Your task to perform on an android device: add a contact Image 0: 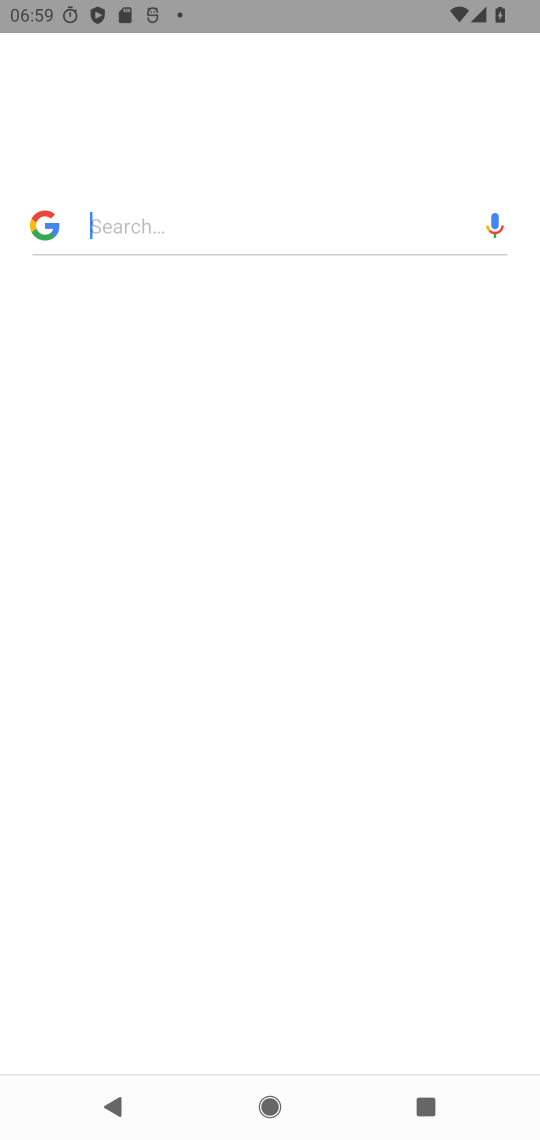
Step 0: press home button
Your task to perform on an android device: add a contact Image 1: 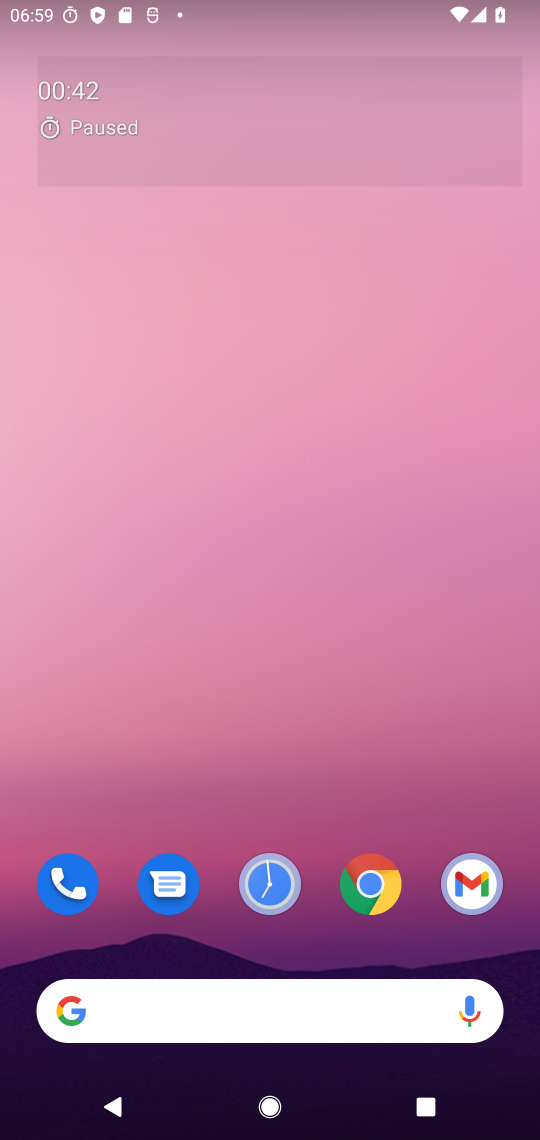
Step 1: drag from (340, 308) to (345, 132)
Your task to perform on an android device: add a contact Image 2: 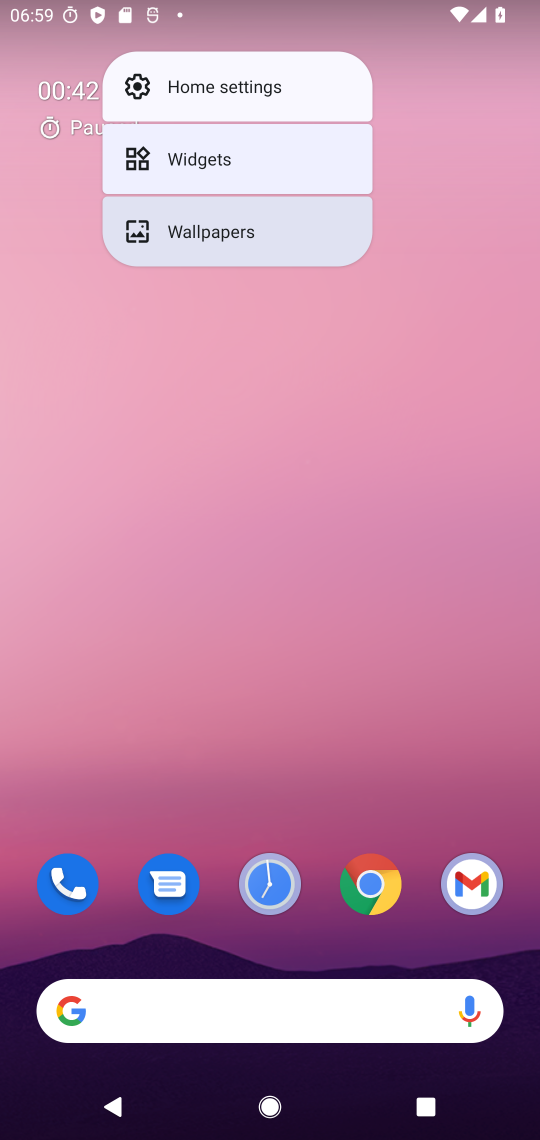
Step 2: click (327, 943)
Your task to perform on an android device: add a contact Image 3: 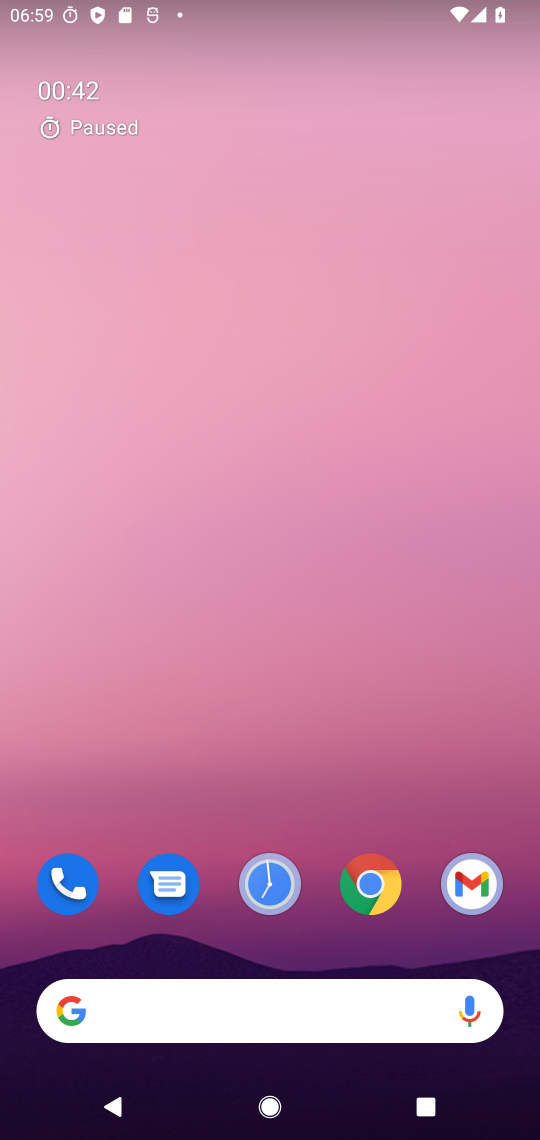
Step 3: drag from (311, 941) to (255, 248)
Your task to perform on an android device: add a contact Image 4: 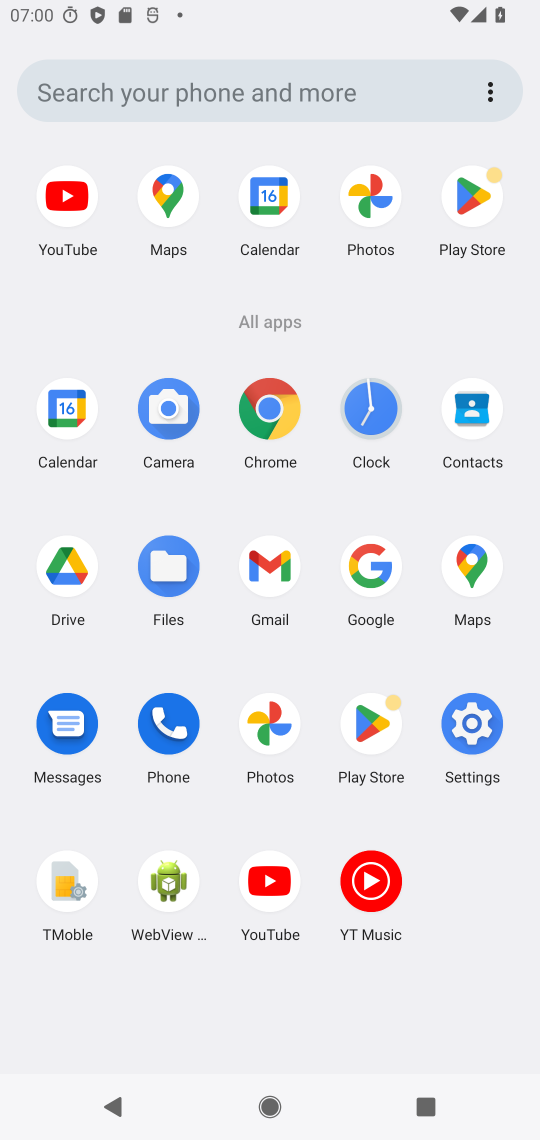
Step 4: click (481, 422)
Your task to perform on an android device: add a contact Image 5: 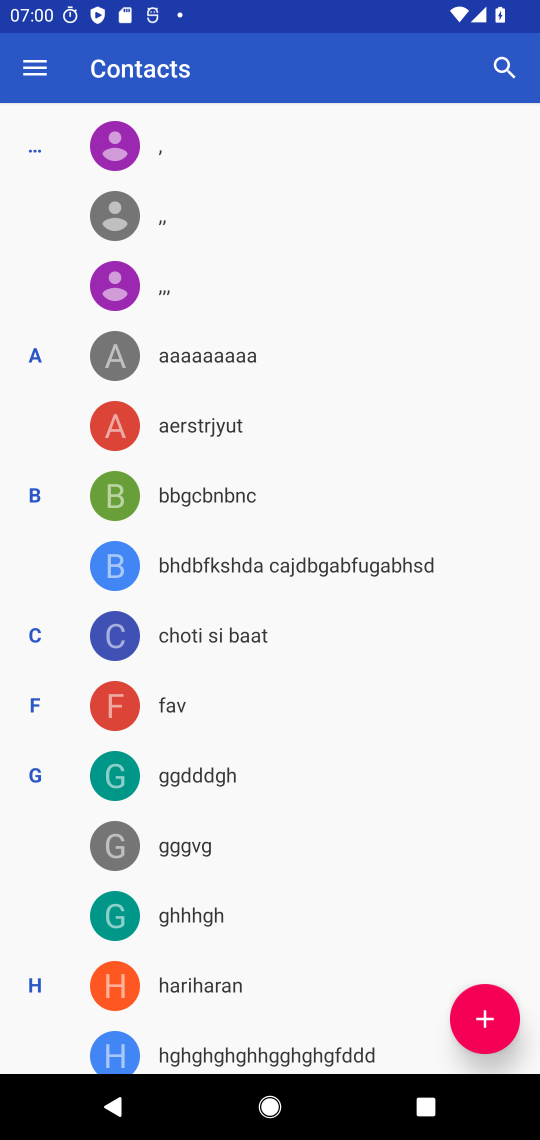
Step 5: click (493, 1017)
Your task to perform on an android device: add a contact Image 6: 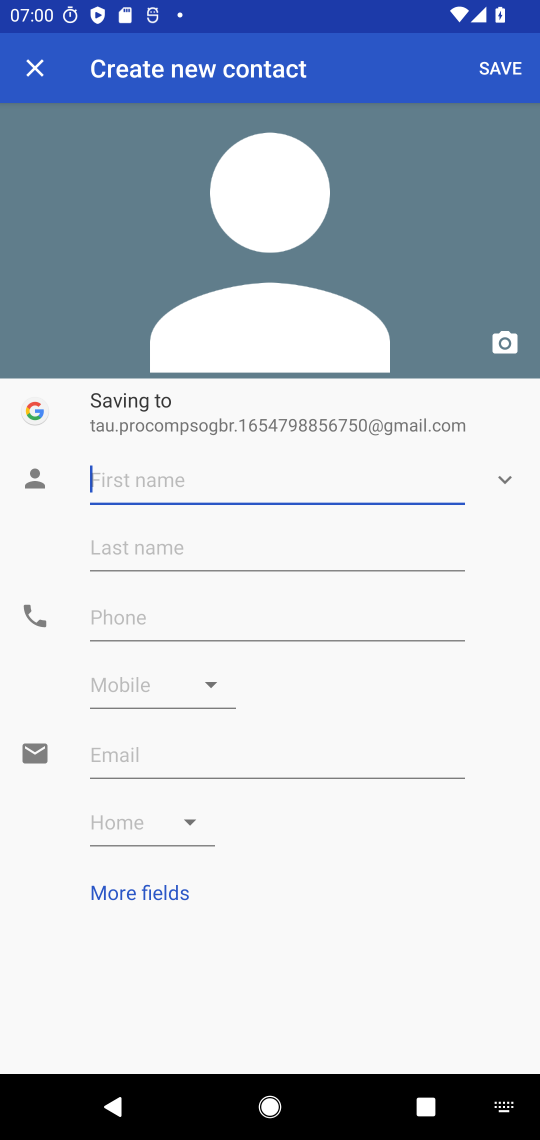
Step 6: click (187, 473)
Your task to perform on an android device: add a contact Image 7: 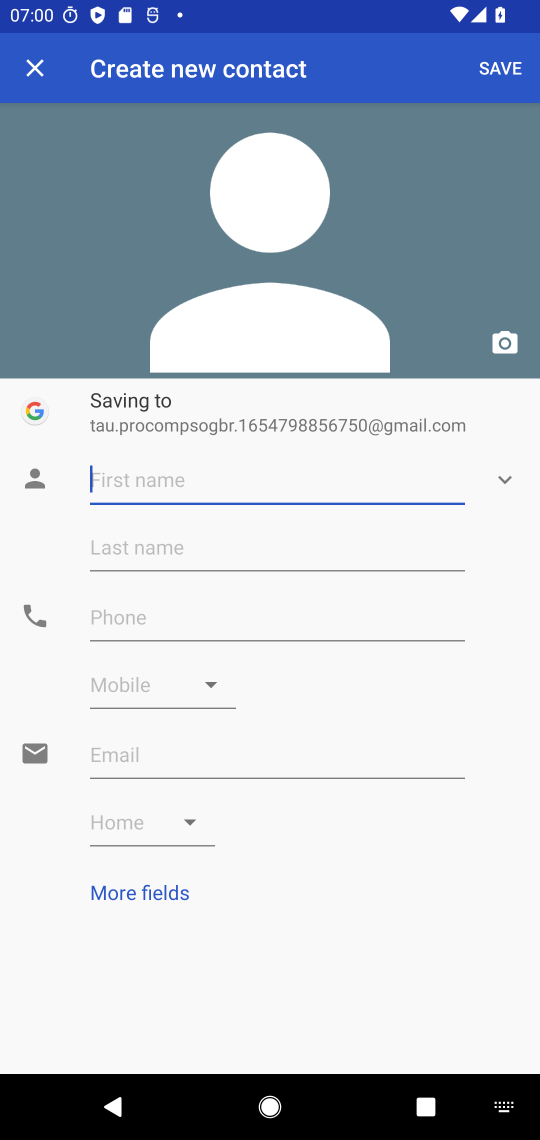
Step 7: press enter
Your task to perform on an android device: add a contact Image 8: 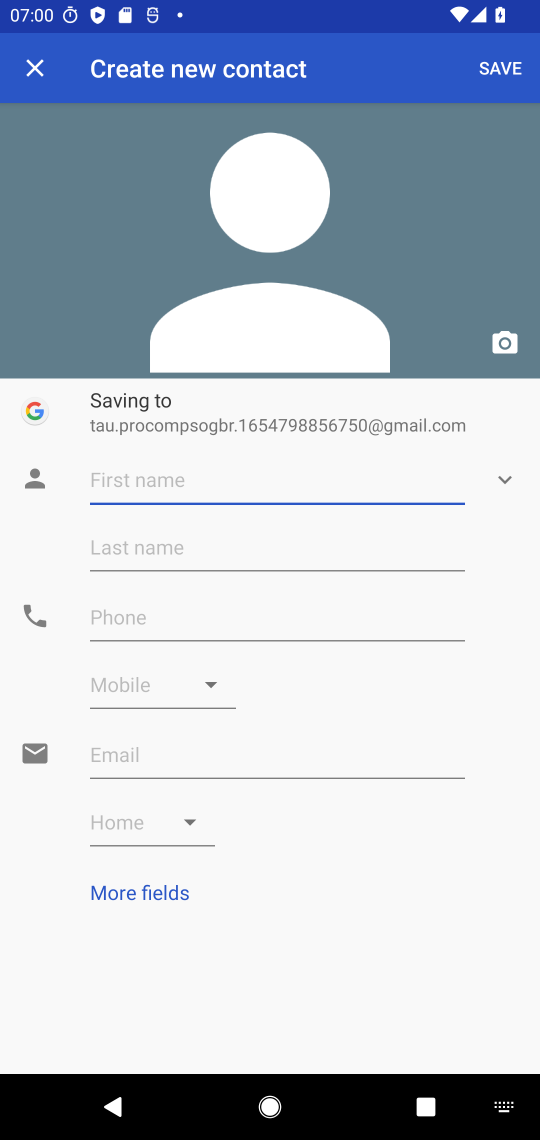
Step 8: type "kjkjkj"
Your task to perform on an android device: add a contact Image 9: 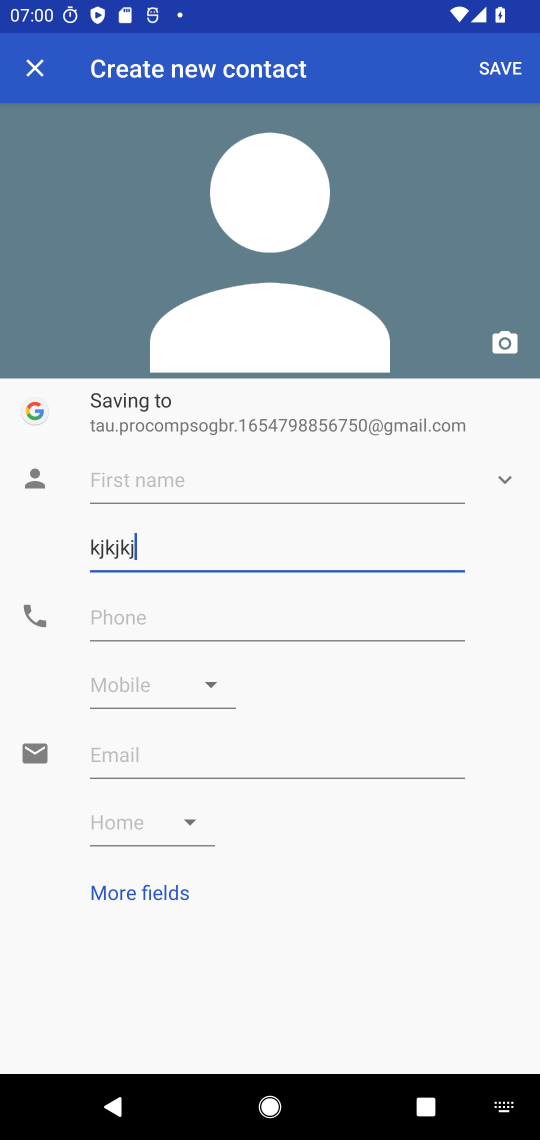
Step 9: drag from (173, 547) to (48, 537)
Your task to perform on an android device: add a contact Image 10: 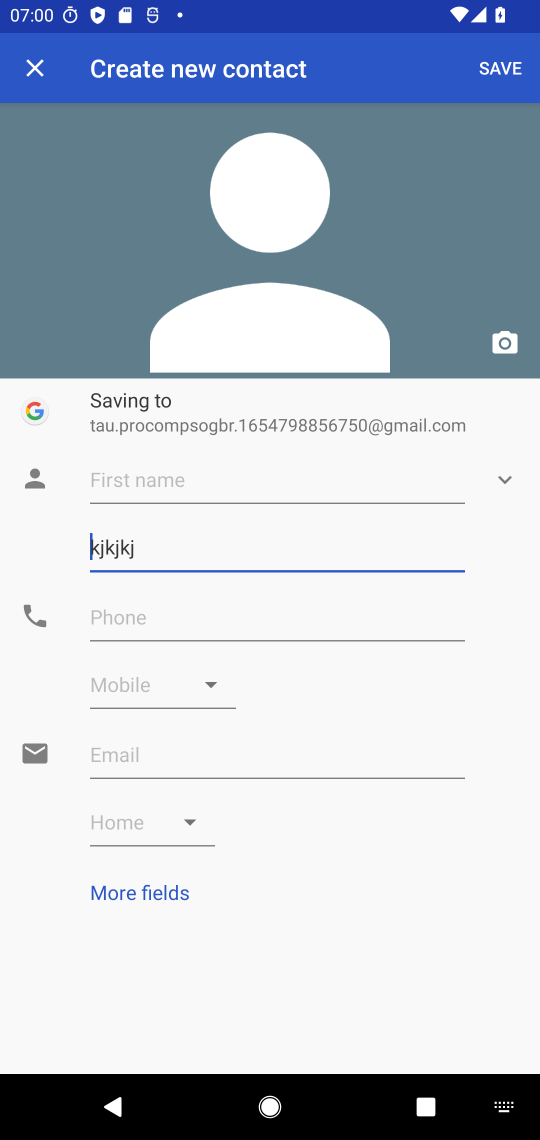
Step 10: click (232, 542)
Your task to perform on an android device: add a contact Image 11: 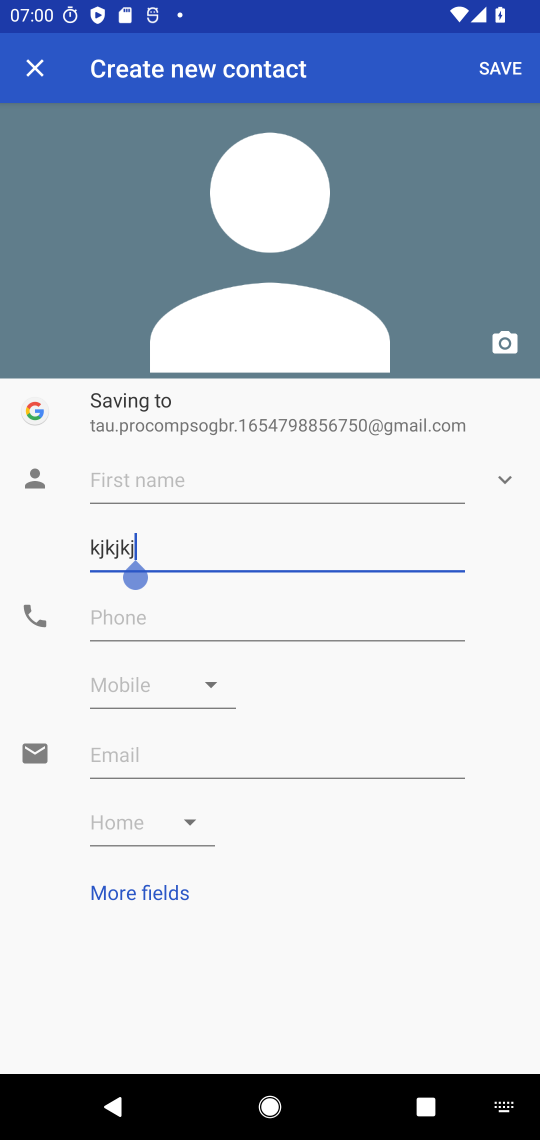
Step 11: click (135, 545)
Your task to perform on an android device: add a contact Image 12: 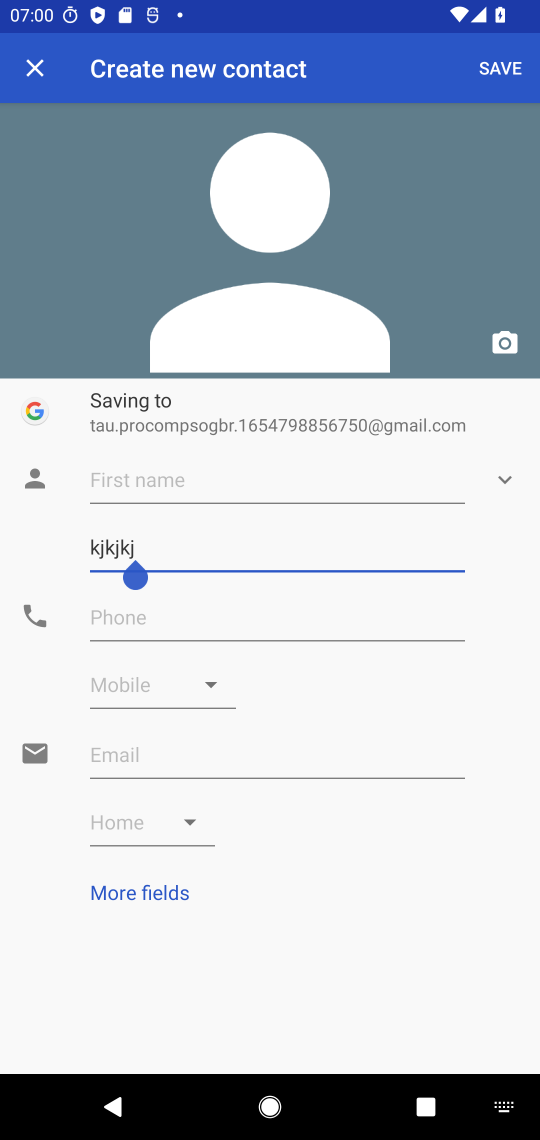
Step 12: click (128, 465)
Your task to perform on an android device: add a contact Image 13: 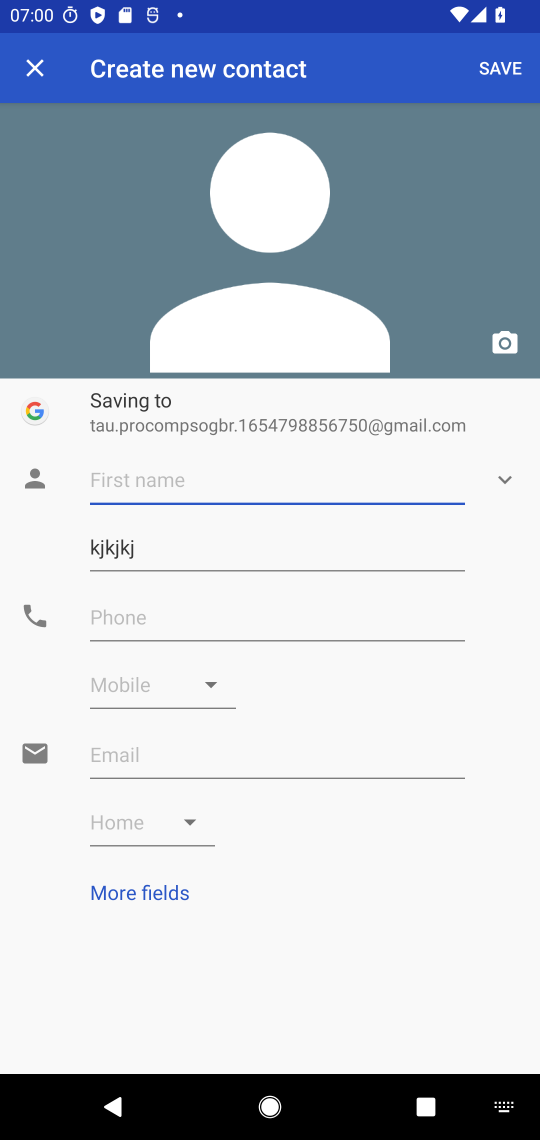
Step 13: click (197, 546)
Your task to perform on an android device: add a contact Image 14: 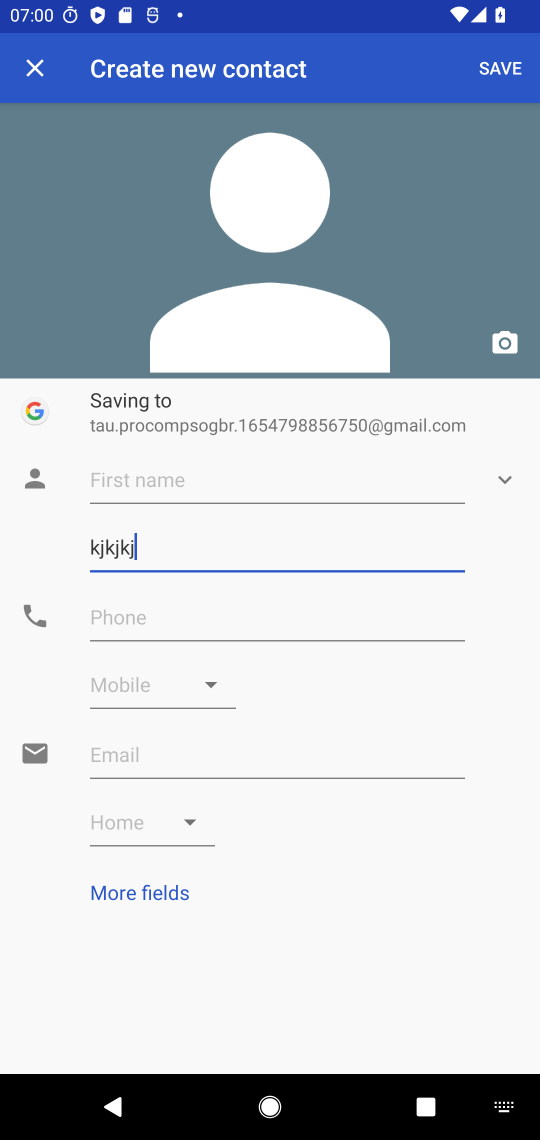
Step 14: click (267, 623)
Your task to perform on an android device: add a contact Image 15: 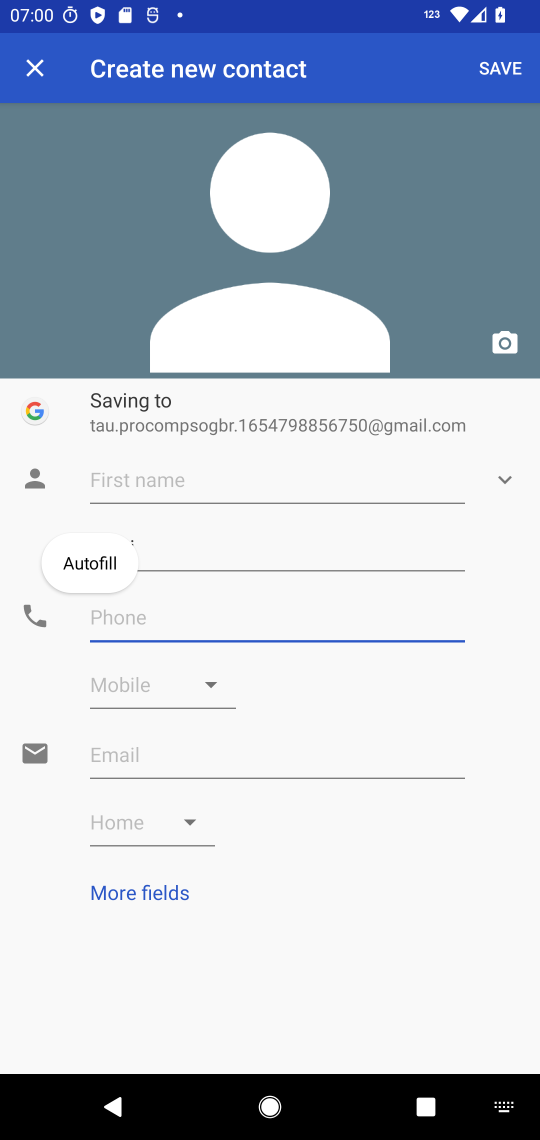
Step 15: type "78788"
Your task to perform on an android device: add a contact Image 16: 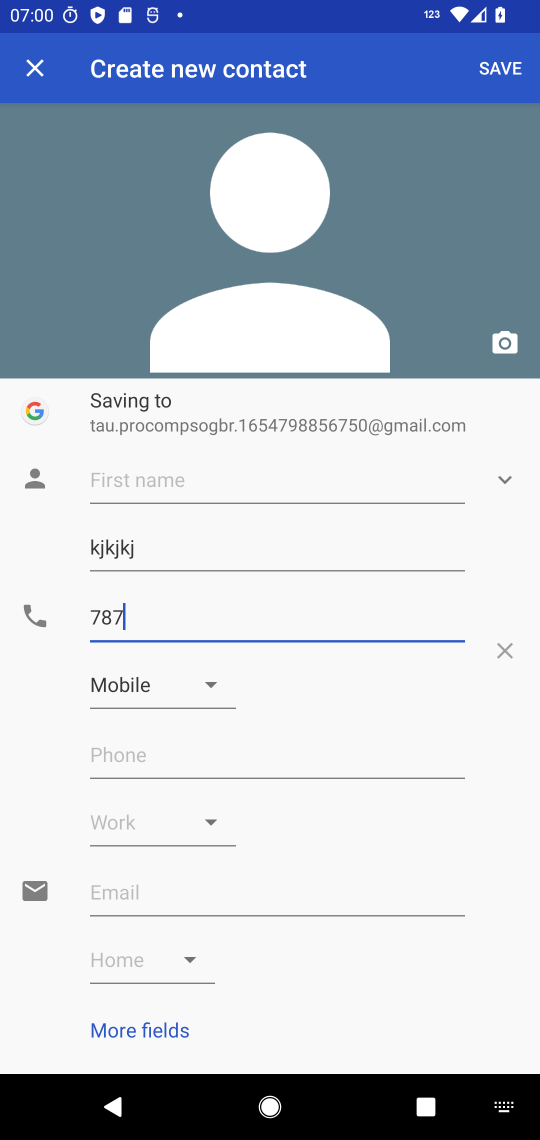
Step 16: press enter
Your task to perform on an android device: add a contact Image 17: 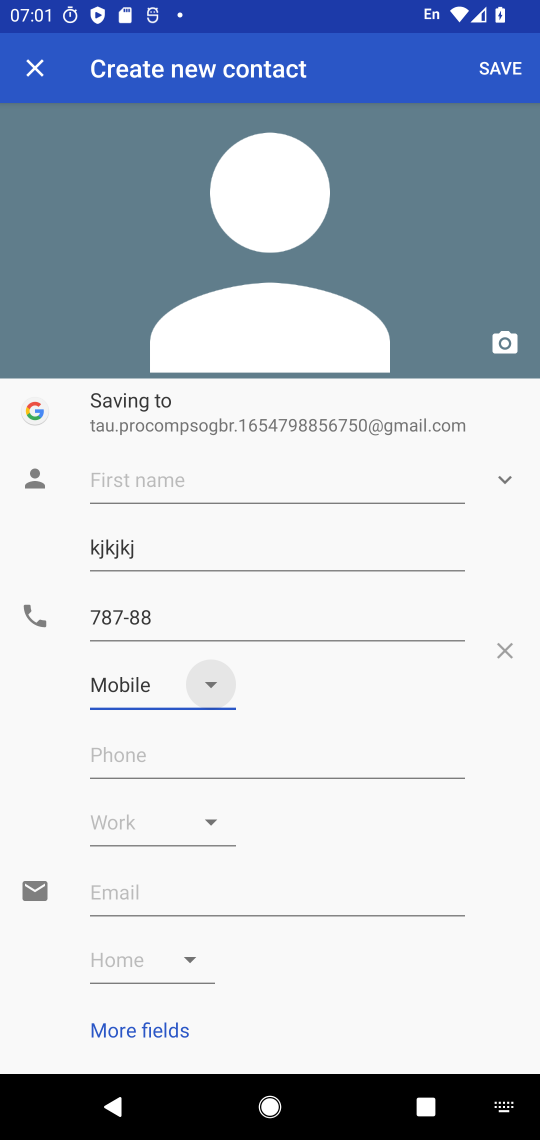
Step 17: click (489, 69)
Your task to perform on an android device: add a contact Image 18: 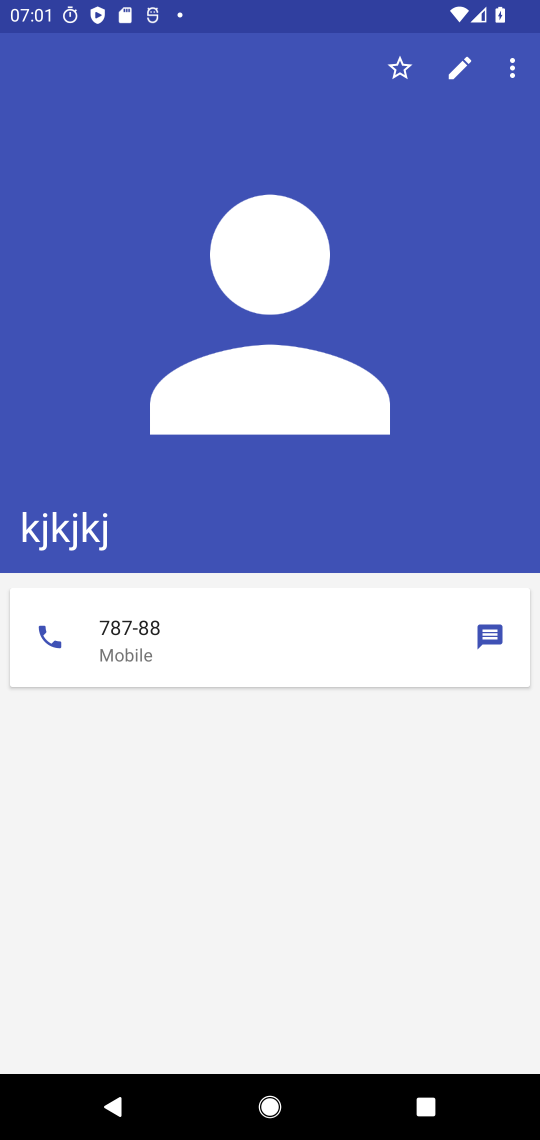
Step 18: task complete